Your task to perform on an android device: snooze an email in the gmail app Image 0: 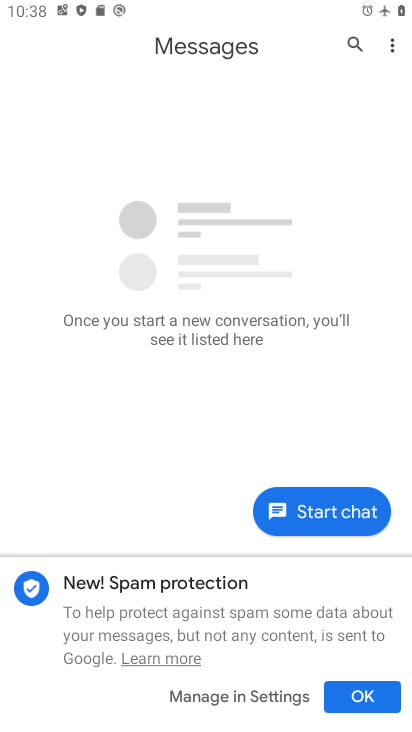
Step 0: press home button
Your task to perform on an android device: snooze an email in the gmail app Image 1: 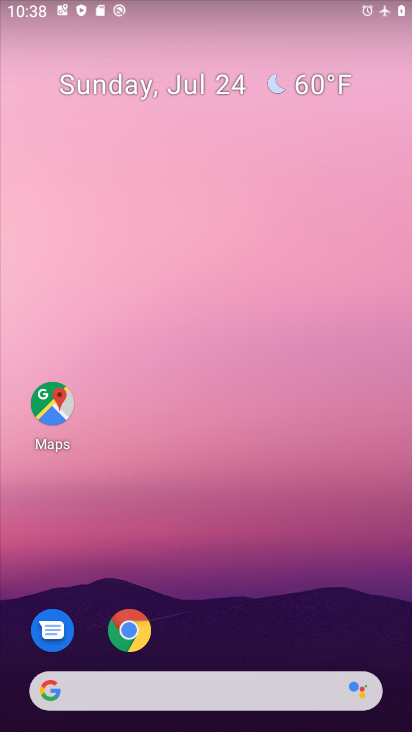
Step 1: drag from (205, 580) to (239, 207)
Your task to perform on an android device: snooze an email in the gmail app Image 2: 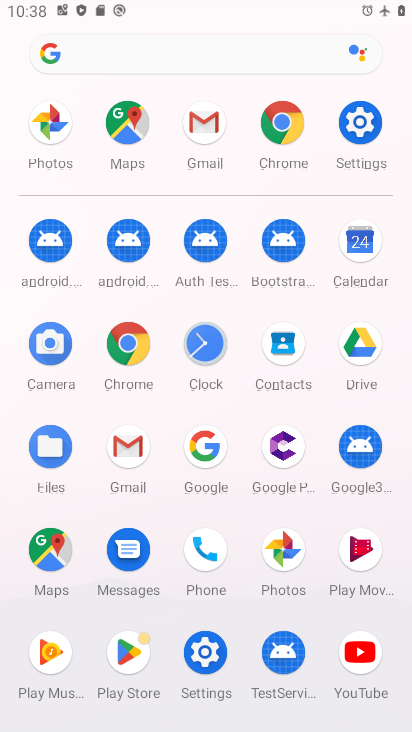
Step 2: click (126, 465)
Your task to perform on an android device: snooze an email in the gmail app Image 3: 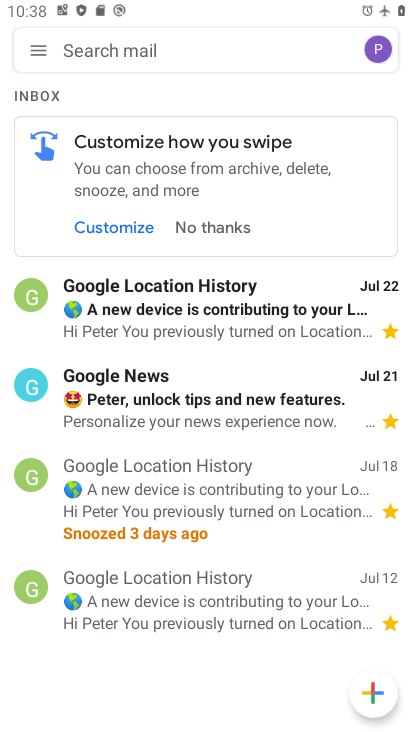
Step 3: click (32, 304)
Your task to perform on an android device: snooze an email in the gmail app Image 4: 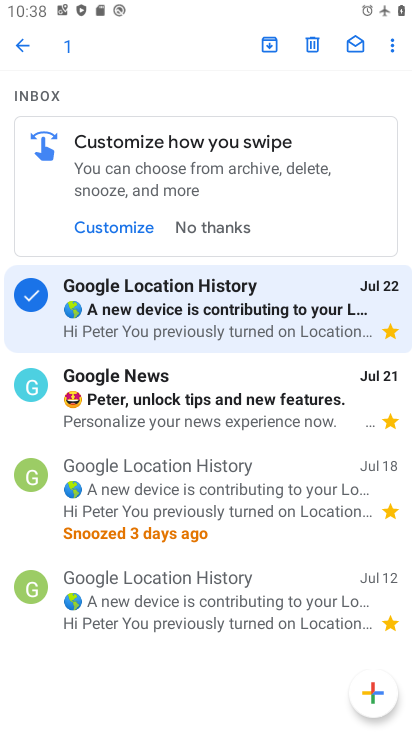
Step 4: click (388, 19)
Your task to perform on an android device: snooze an email in the gmail app Image 5: 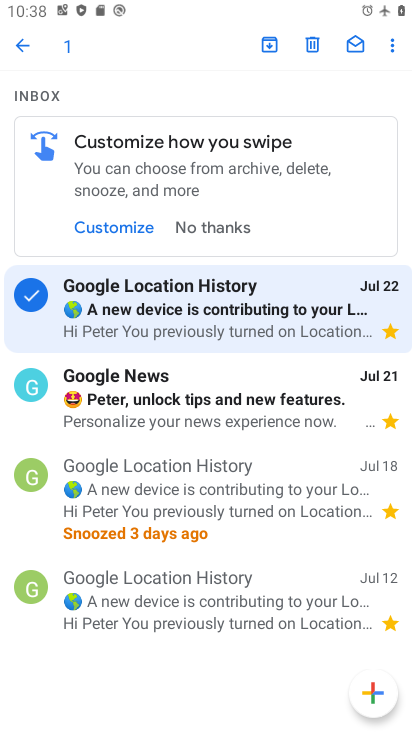
Step 5: click (387, 45)
Your task to perform on an android device: snooze an email in the gmail app Image 6: 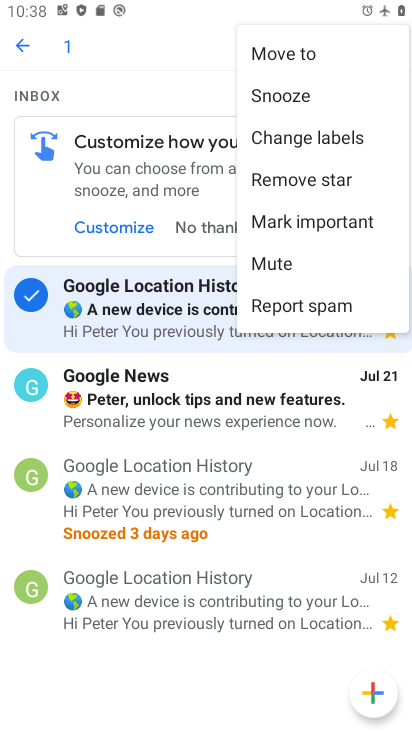
Step 6: click (280, 91)
Your task to perform on an android device: snooze an email in the gmail app Image 7: 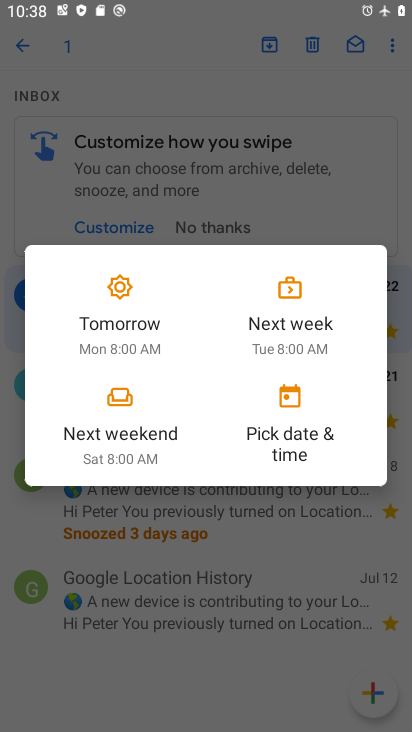
Step 7: click (122, 320)
Your task to perform on an android device: snooze an email in the gmail app Image 8: 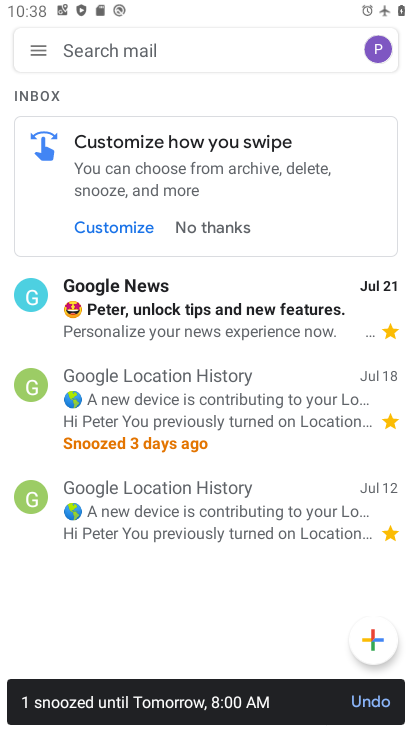
Step 8: task complete